Your task to perform on an android device: Go to Maps Image 0: 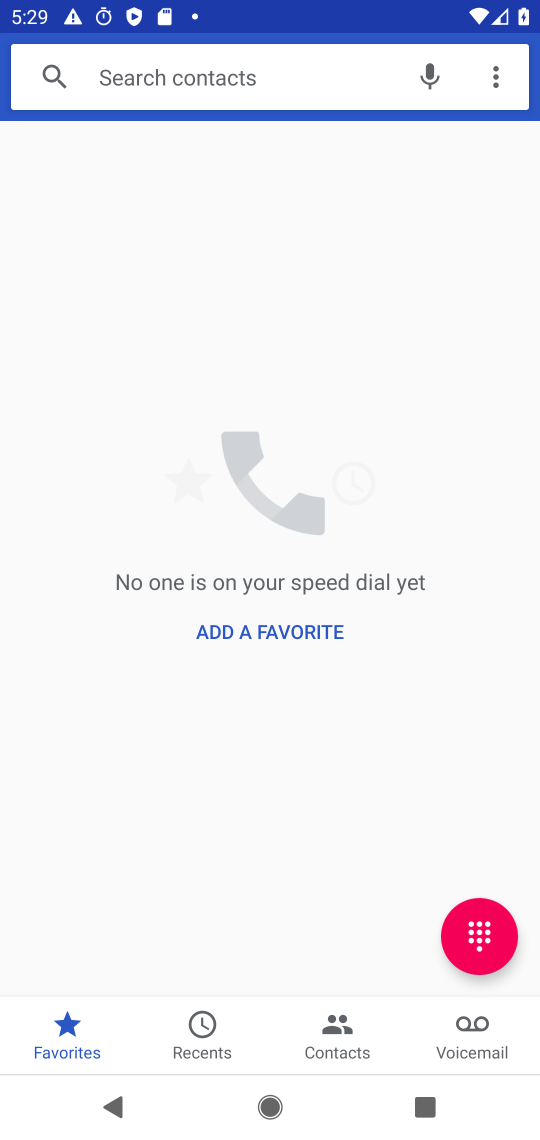
Step 0: press home button
Your task to perform on an android device: Go to Maps Image 1: 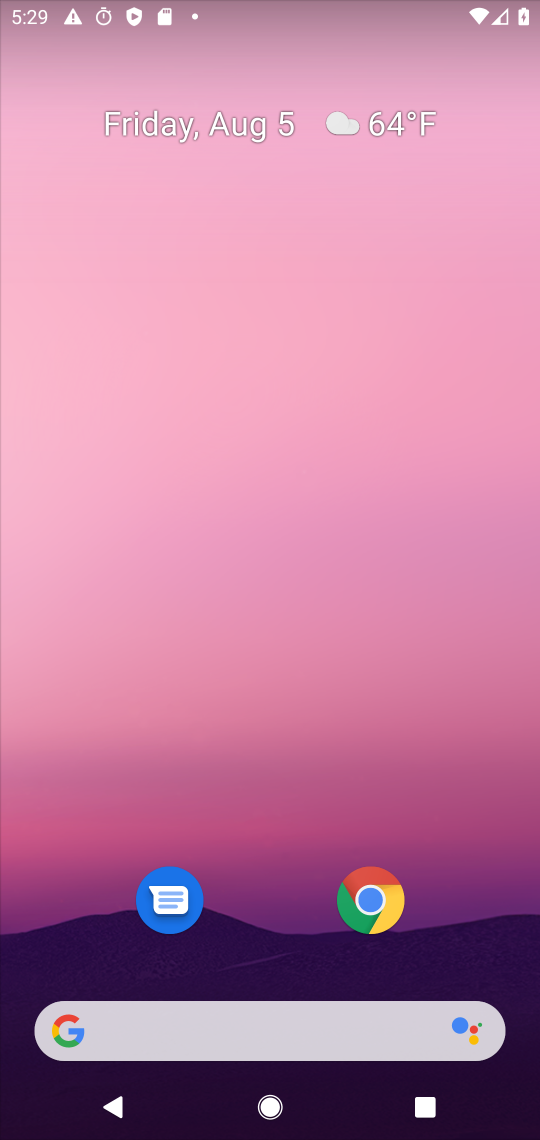
Step 1: drag from (189, 979) to (162, 30)
Your task to perform on an android device: Go to Maps Image 2: 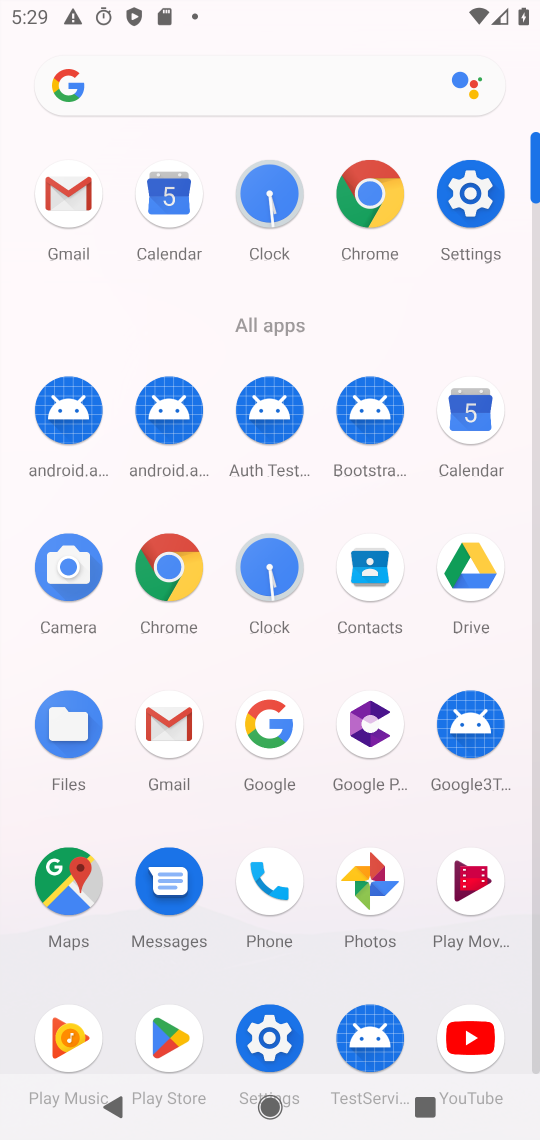
Step 2: click (83, 862)
Your task to perform on an android device: Go to Maps Image 3: 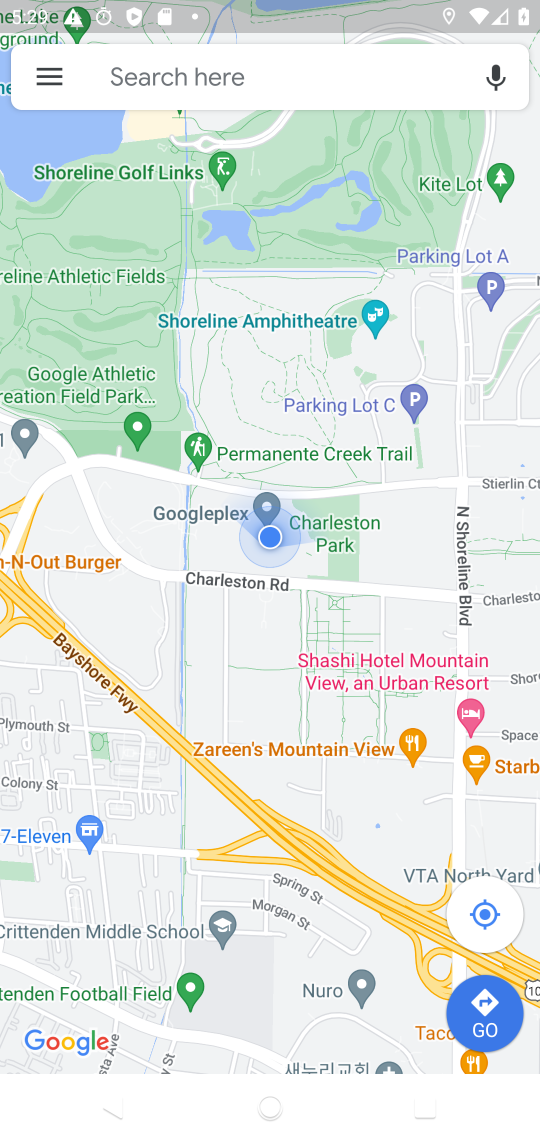
Step 3: task complete